Your task to perform on an android device: toggle data saver in the chrome app Image 0: 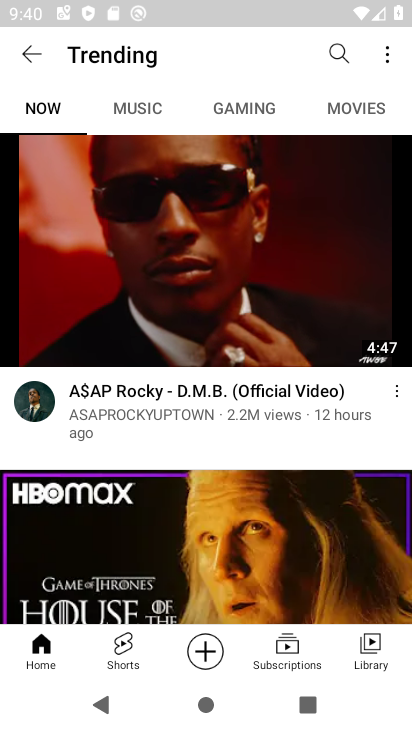
Step 0: press home button
Your task to perform on an android device: toggle data saver in the chrome app Image 1: 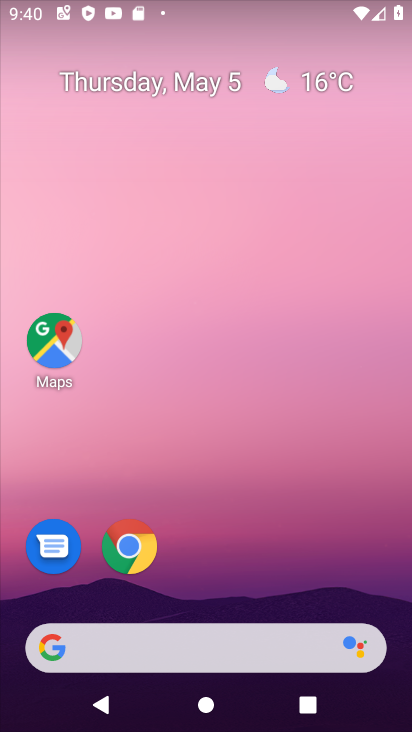
Step 1: click (145, 549)
Your task to perform on an android device: toggle data saver in the chrome app Image 2: 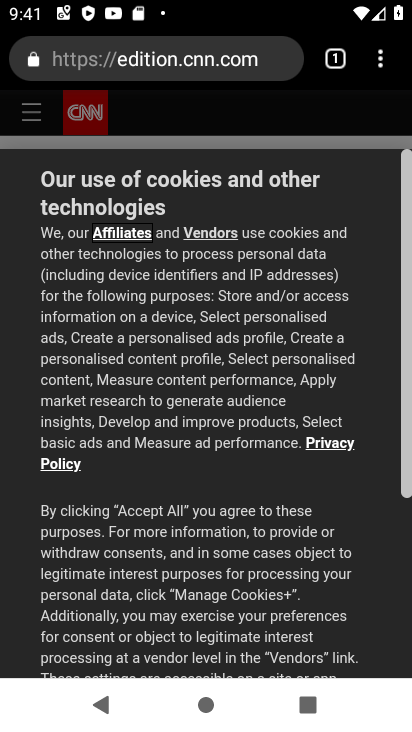
Step 2: click (381, 54)
Your task to perform on an android device: toggle data saver in the chrome app Image 3: 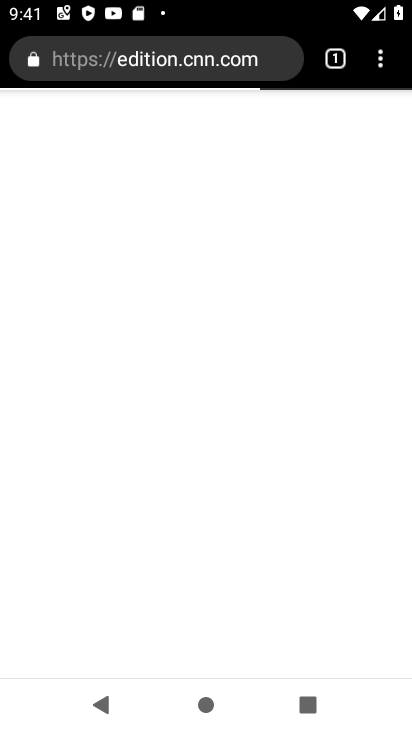
Step 3: click (380, 54)
Your task to perform on an android device: toggle data saver in the chrome app Image 4: 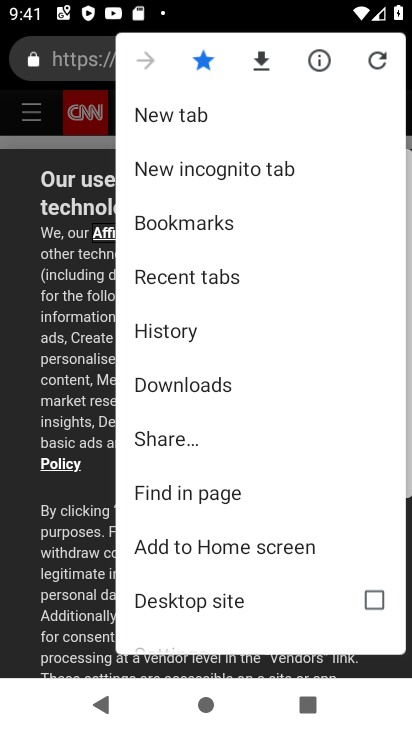
Step 4: drag from (232, 597) to (237, 290)
Your task to perform on an android device: toggle data saver in the chrome app Image 5: 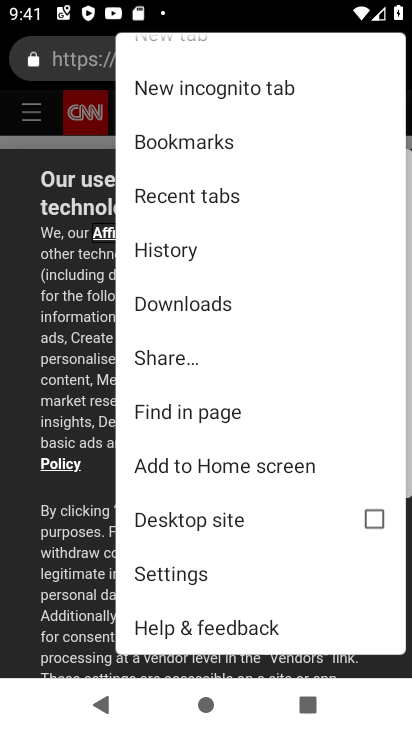
Step 5: click (204, 576)
Your task to perform on an android device: toggle data saver in the chrome app Image 6: 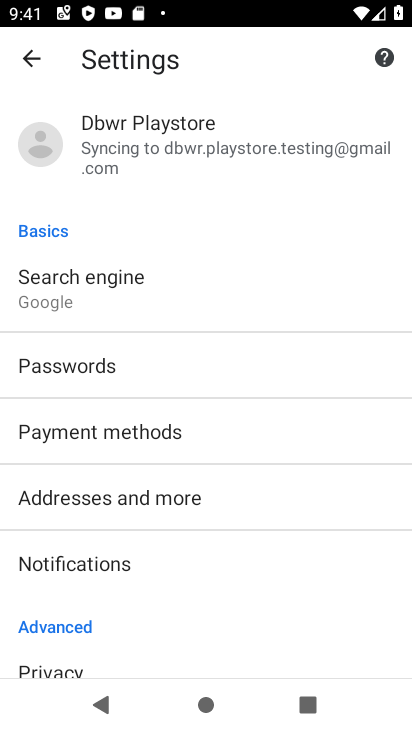
Step 6: drag from (177, 598) to (176, 433)
Your task to perform on an android device: toggle data saver in the chrome app Image 7: 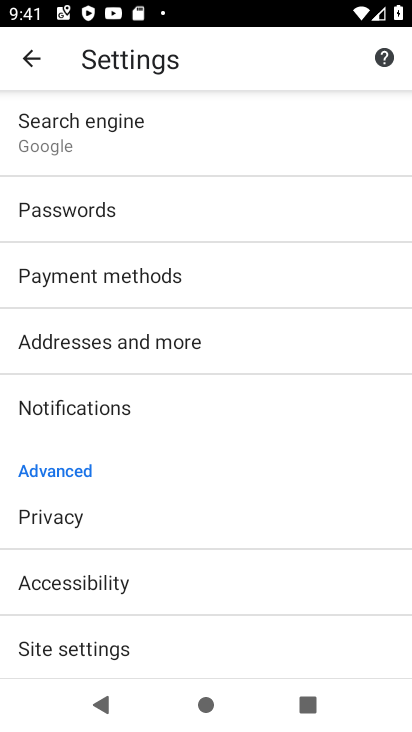
Step 7: drag from (176, 585) to (163, 412)
Your task to perform on an android device: toggle data saver in the chrome app Image 8: 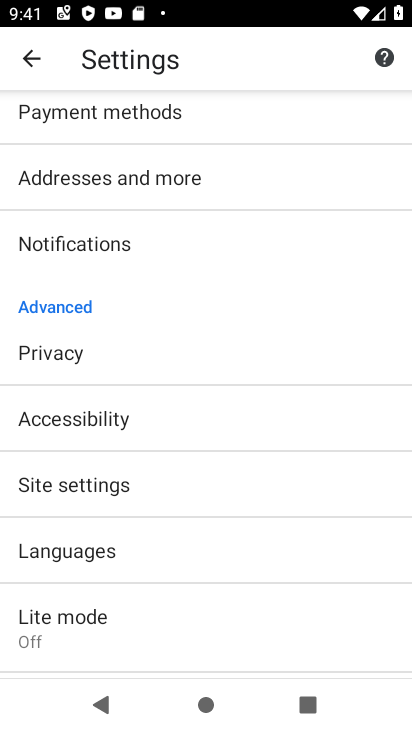
Step 8: click (149, 618)
Your task to perform on an android device: toggle data saver in the chrome app Image 9: 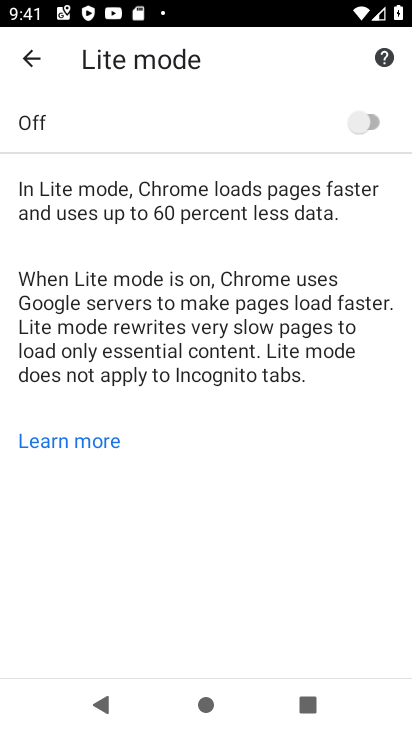
Step 9: click (361, 115)
Your task to perform on an android device: toggle data saver in the chrome app Image 10: 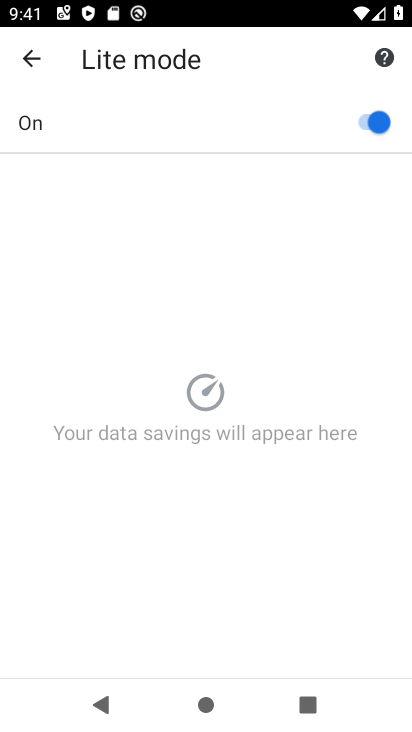
Step 10: task complete